Your task to perform on an android device: Add razer kraken to the cart on costco.com, then select checkout. Image 0: 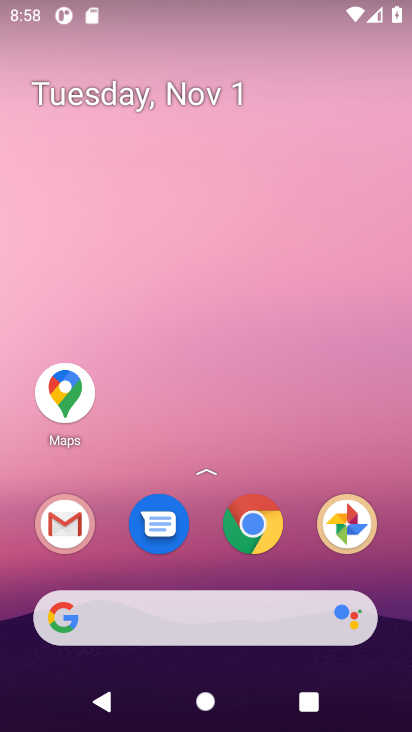
Step 0: press home button
Your task to perform on an android device: Add razer kraken to the cart on costco.com, then select checkout. Image 1: 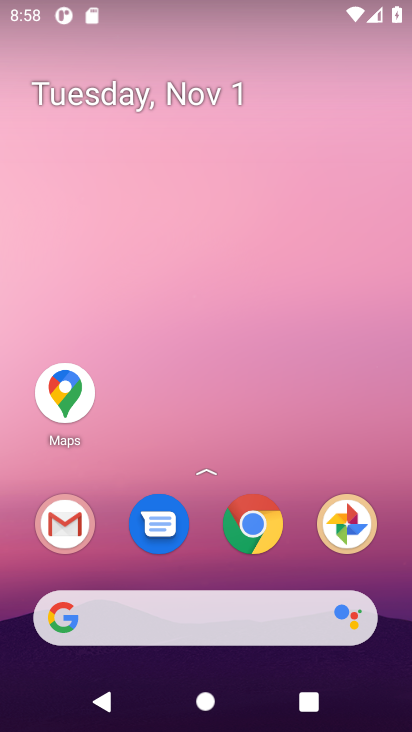
Step 1: press home button
Your task to perform on an android device: Add razer kraken to the cart on costco.com, then select checkout. Image 2: 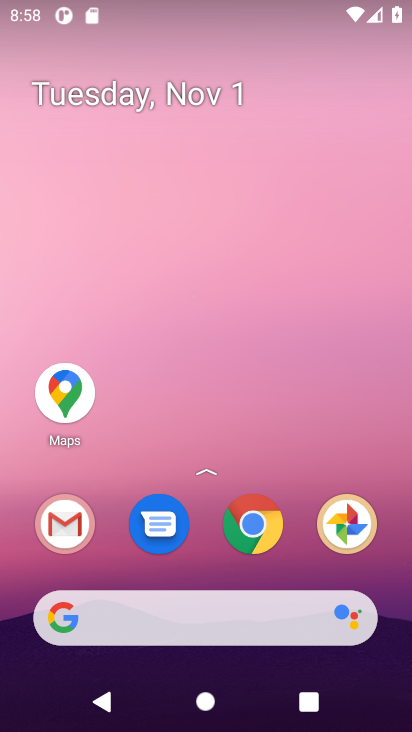
Step 2: click (89, 616)
Your task to perform on an android device: Add razer kraken to the cart on costco.com, then select checkout. Image 3: 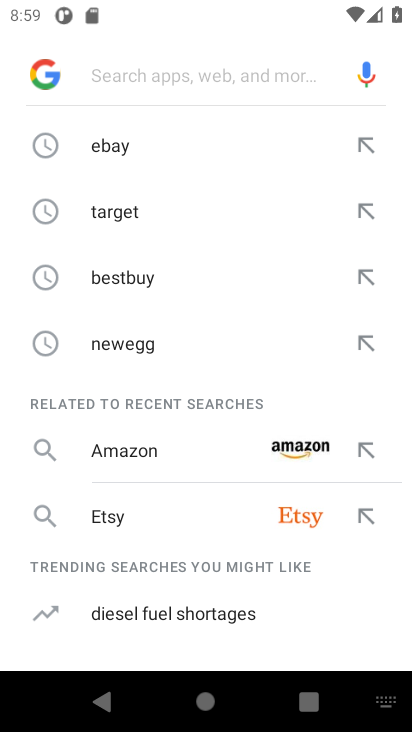
Step 3: type "costco.com"
Your task to perform on an android device: Add razer kraken to the cart on costco.com, then select checkout. Image 4: 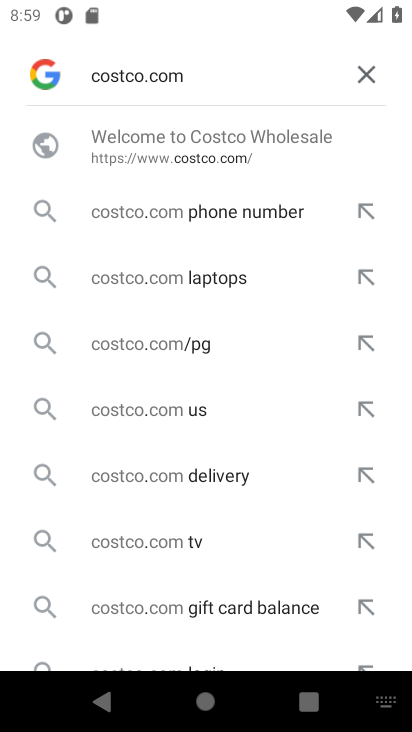
Step 4: press enter
Your task to perform on an android device: Add razer kraken to the cart on costco.com, then select checkout. Image 5: 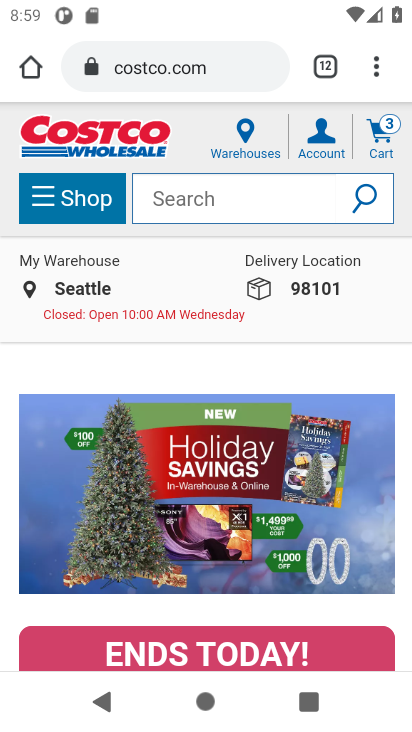
Step 5: click (155, 195)
Your task to perform on an android device: Add razer kraken to the cart on costco.com, then select checkout. Image 6: 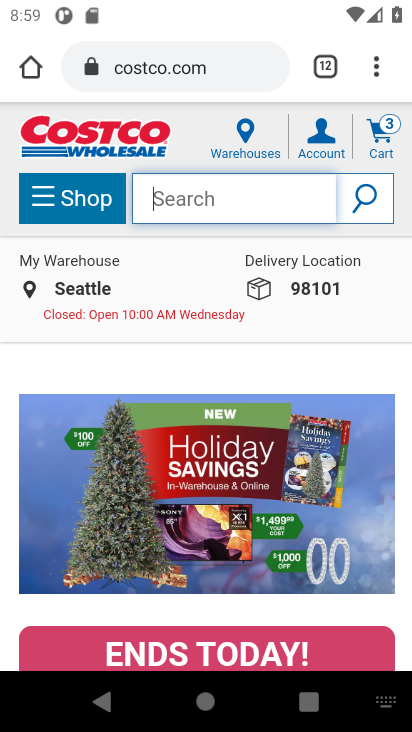
Step 6: press enter
Your task to perform on an android device: Add razer kraken to the cart on costco.com, then select checkout. Image 7: 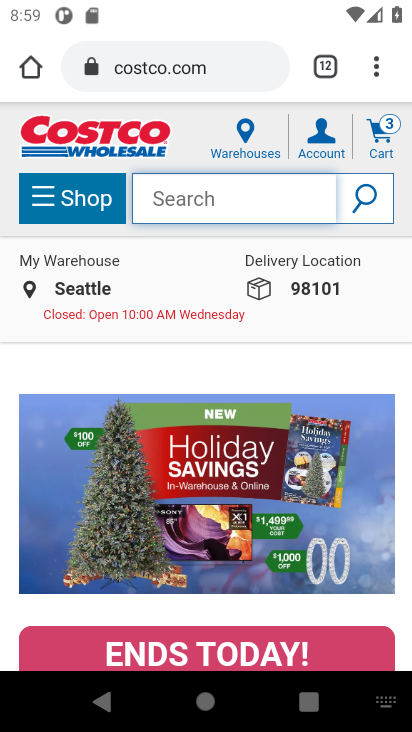
Step 7: type "razer kraken"
Your task to perform on an android device: Add razer kraken to the cart on costco.com, then select checkout. Image 8: 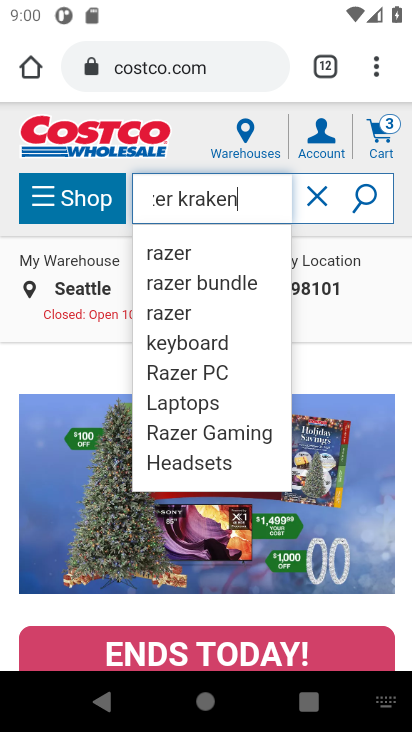
Step 8: click (372, 195)
Your task to perform on an android device: Add razer kraken to the cart on costco.com, then select checkout. Image 9: 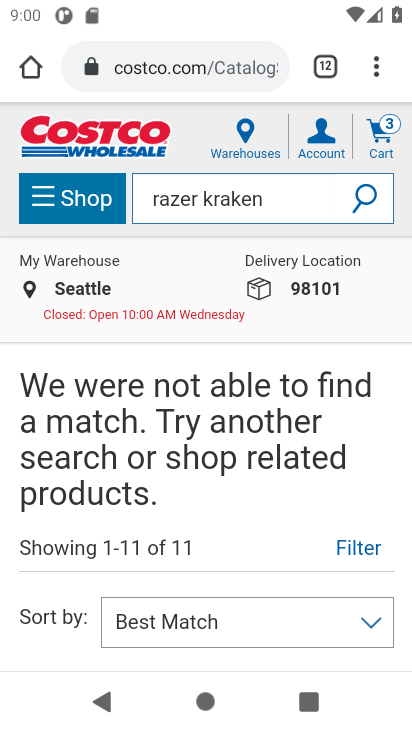
Step 9: task complete